Your task to perform on an android device: Clear the cart on walmart.com. Search for "energizer triple a" on walmart.com, select the first entry, add it to the cart, then select checkout. Image 0: 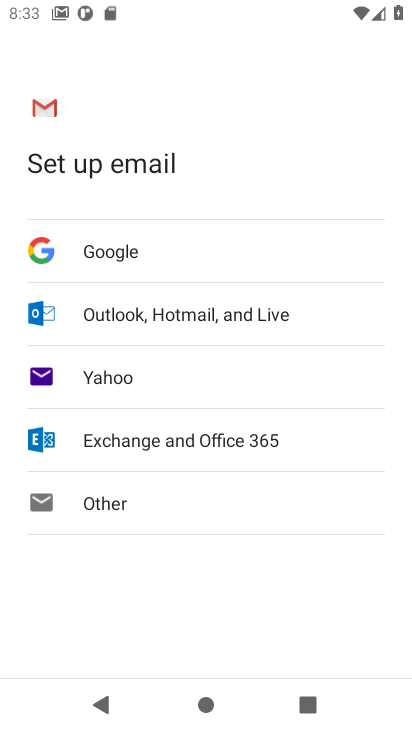
Step 0: press home button
Your task to perform on an android device: Clear the cart on walmart.com. Search for "energizer triple a" on walmart.com, select the first entry, add it to the cart, then select checkout. Image 1: 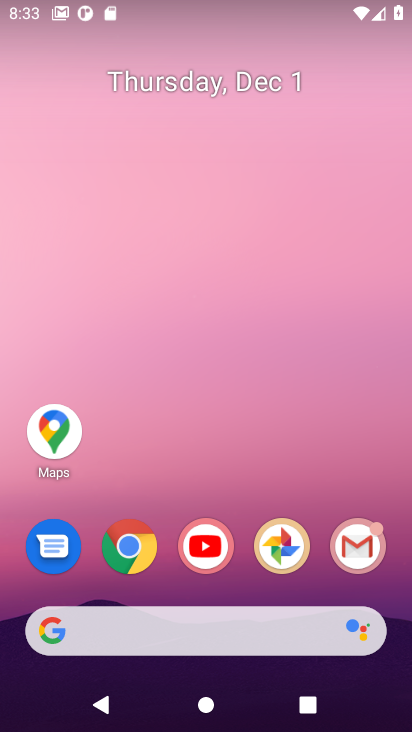
Step 1: click (132, 541)
Your task to perform on an android device: Clear the cart on walmart.com. Search for "energizer triple a" on walmart.com, select the first entry, add it to the cart, then select checkout. Image 2: 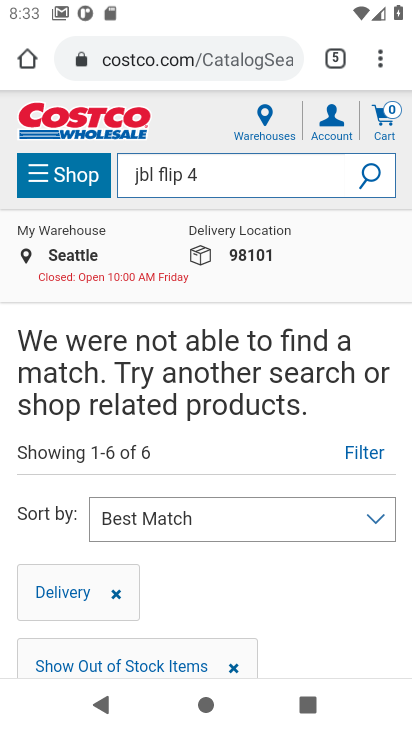
Step 2: click (154, 58)
Your task to perform on an android device: Clear the cart on walmart.com. Search for "energizer triple a" on walmart.com, select the first entry, add it to the cart, then select checkout. Image 3: 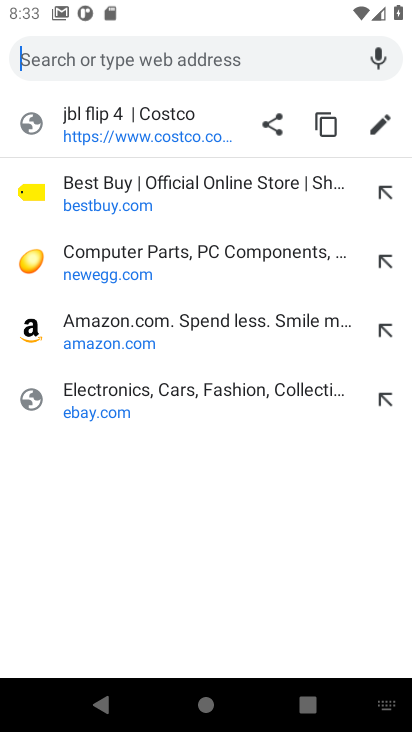
Step 3: type "walmart.com"
Your task to perform on an android device: Clear the cart on walmart.com. Search for "energizer triple a" on walmart.com, select the first entry, add it to the cart, then select checkout. Image 4: 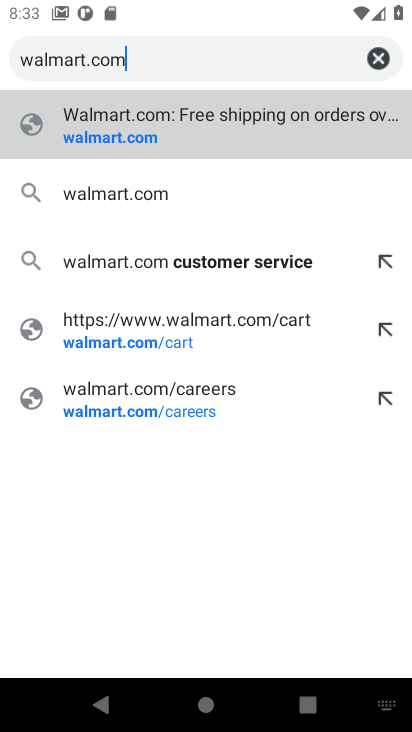
Step 4: click (99, 135)
Your task to perform on an android device: Clear the cart on walmart.com. Search for "energizer triple a" on walmart.com, select the first entry, add it to the cart, then select checkout. Image 5: 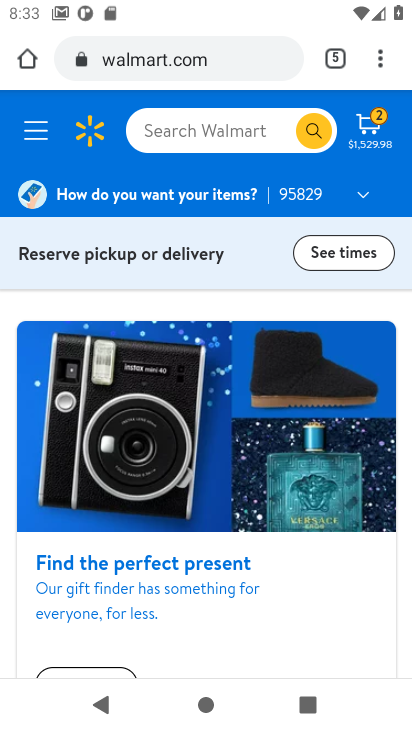
Step 5: click (371, 129)
Your task to perform on an android device: Clear the cart on walmart.com. Search for "energizer triple a" on walmart.com, select the first entry, add it to the cart, then select checkout. Image 6: 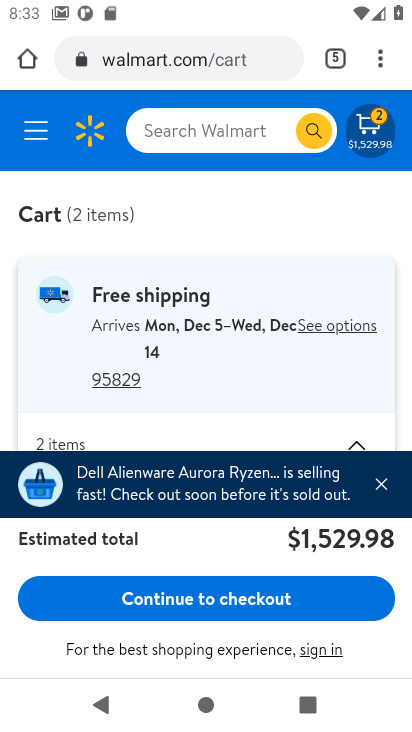
Step 6: drag from (258, 365) to (263, 185)
Your task to perform on an android device: Clear the cart on walmart.com. Search for "energizer triple a" on walmart.com, select the first entry, add it to the cart, then select checkout. Image 7: 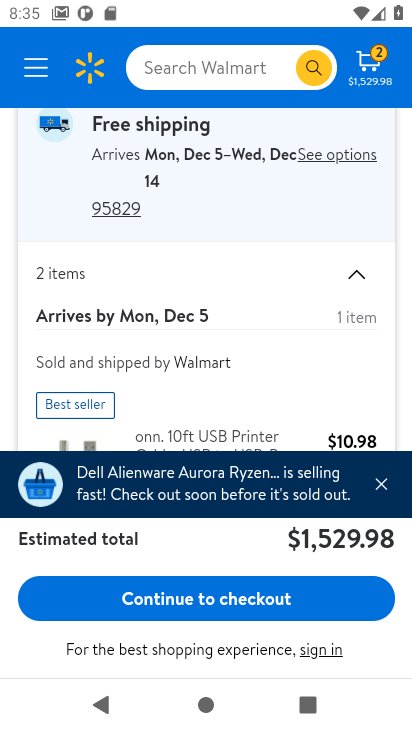
Step 7: drag from (195, 371) to (191, 237)
Your task to perform on an android device: Clear the cart on walmart.com. Search for "energizer triple a" on walmart.com, select the first entry, add it to the cart, then select checkout. Image 8: 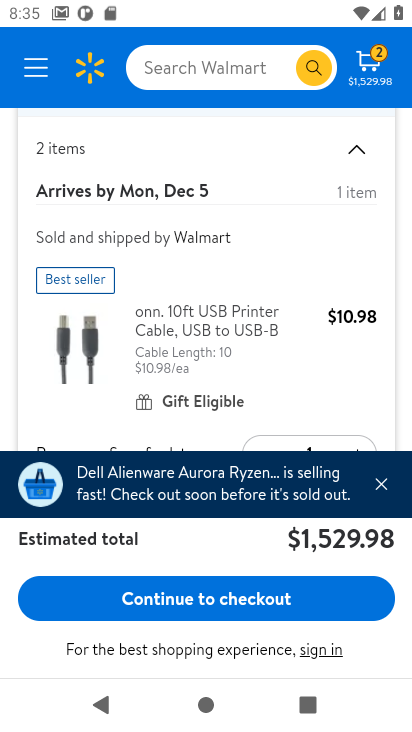
Step 8: drag from (140, 299) to (140, 189)
Your task to perform on an android device: Clear the cart on walmart.com. Search for "energizer triple a" on walmart.com, select the first entry, add it to the cart, then select checkout. Image 9: 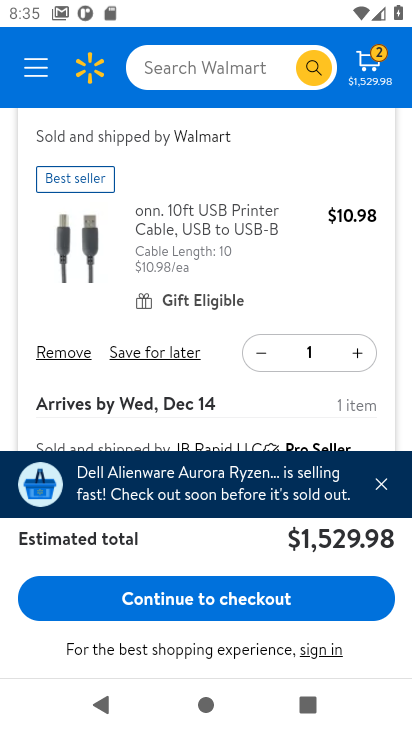
Step 9: click (64, 351)
Your task to perform on an android device: Clear the cart on walmart.com. Search for "energizer triple a" on walmart.com, select the first entry, add it to the cart, then select checkout. Image 10: 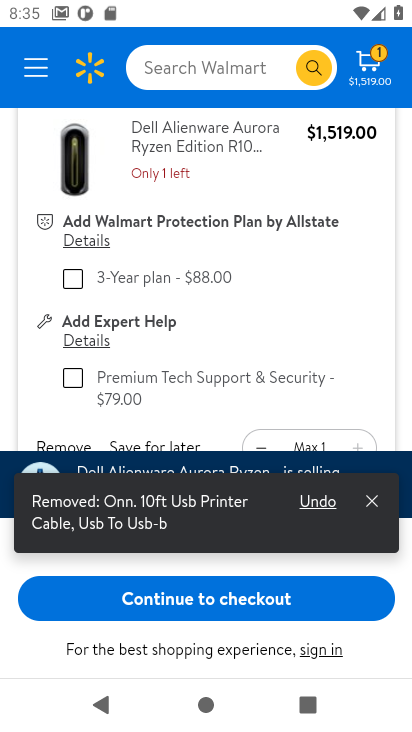
Step 10: drag from (219, 369) to (195, 175)
Your task to perform on an android device: Clear the cart on walmart.com. Search for "energizer triple a" on walmart.com, select the first entry, add it to the cart, then select checkout. Image 11: 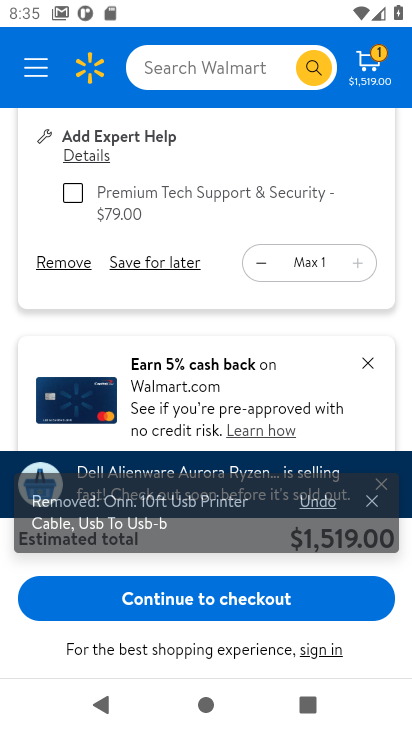
Step 11: click (69, 265)
Your task to perform on an android device: Clear the cart on walmart.com. Search for "energizer triple a" on walmart.com, select the first entry, add it to the cart, then select checkout. Image 12: 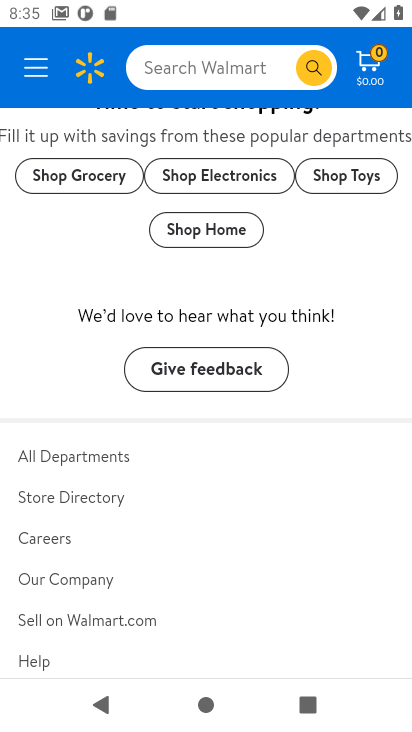
Step 12: click (168, 65)
Your task to perform on an android device: Clear the cart on walmart.com. Search for "energizer triple a" on walmart.com, select the first entry, add it to the cart, then select checkout. Image 13: 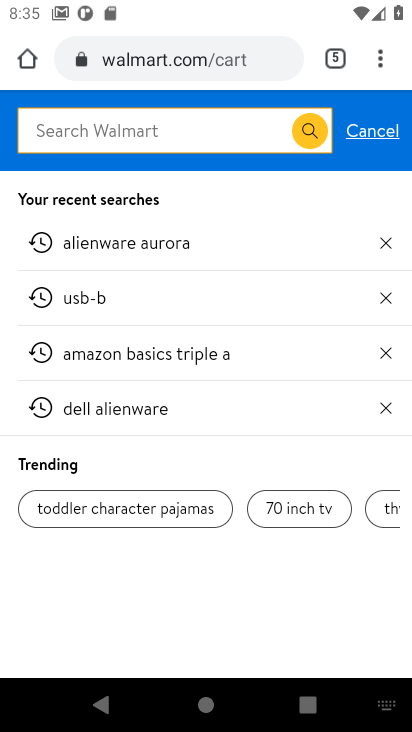
Step 13: type "energizer triple a"
Your task to perform on an android device: Clear the cart on walmart.com. Search for "energizer triple a" on walmart.com, select the first entry, add it to the cart, then select checkout. Image 14: 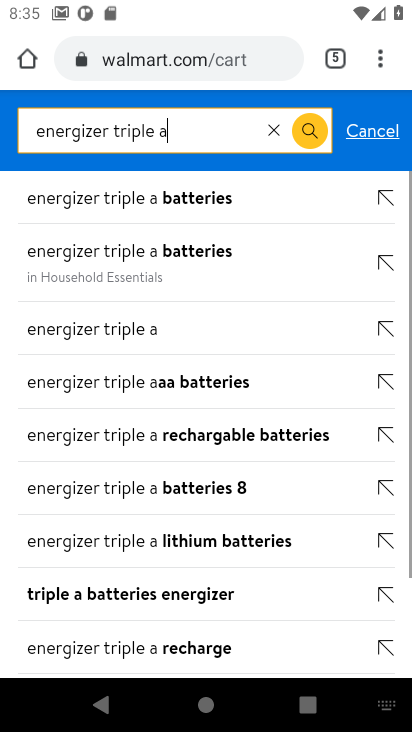
Step 14: click (137, 201)
Your task to perform on an android device: Clear the cart on walmart.com. Search for "energizer triple a" on walmart.com, select the first entry, add it to the cart, then select checkout. Image 15: 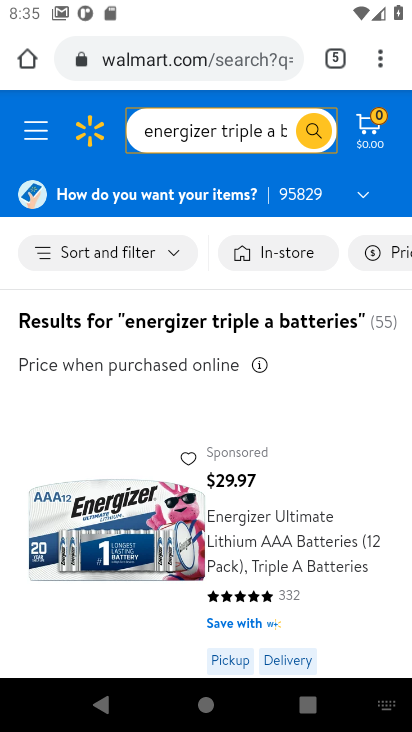
Step 15: drag from (147, 442) to (131, 276)
Your task to perform on an android device: Clear the cart on walmart.com. Search for "energizer triple a" on walmart.com, select the first entry, add it to the cart, then select checkout. Image 16: 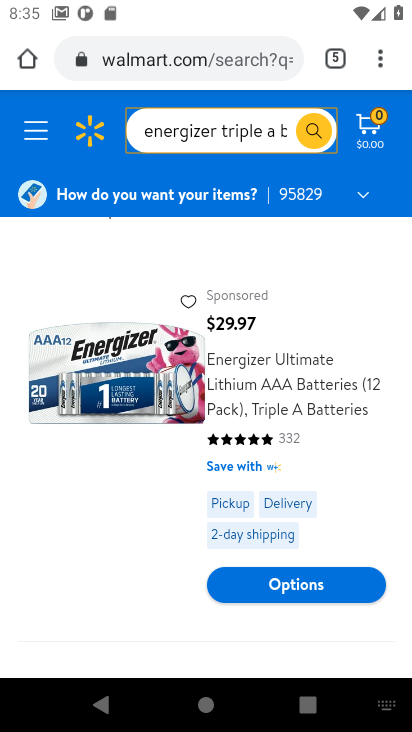
Step 16: click (330, 429)
Your task to perform on an android device: Clear the cart on walmart.com. Search for "energizer triple a" on walmart.com, select the first entry, add it to the cart, then select checkout. Image 17: 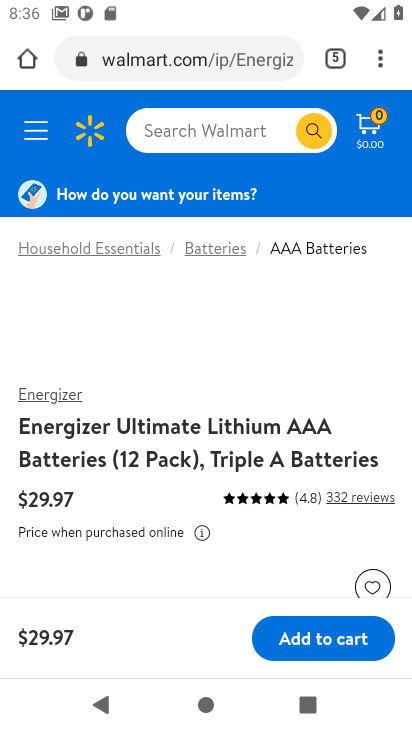
Step 17: click (288, 635)
Your task to perform on an android device: Clear the cart on walmart.com. Search for "energizer triple a" on walmart.com, select the first entry, add it to the cart, then select checkout. Image 18: 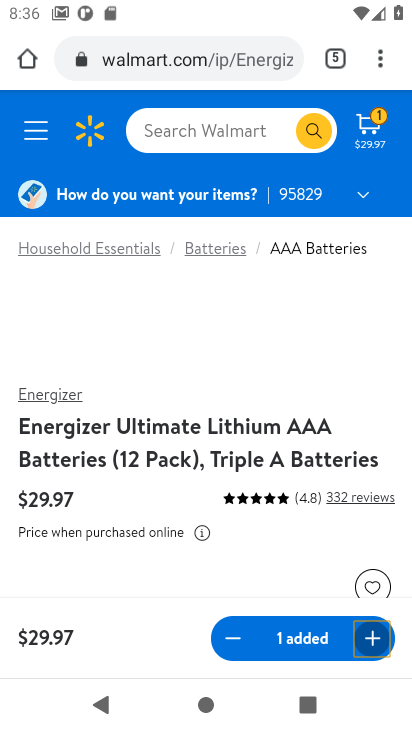
Step 18: click (379, 139)
Your task to perform on an android device: Clear the cart on walmart.com. Search for "energizer triple a" on walmart.com, select the first entry, add it to the cart, then select checkout. Image 19: 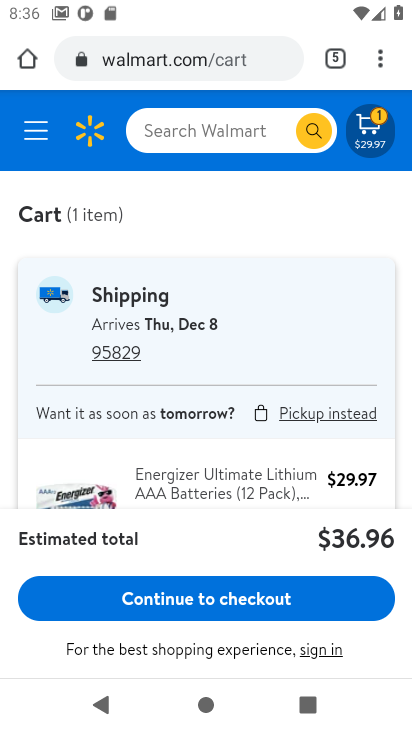
Step 19: click (197, 600)
Your task to perform on an android device: Clear the cart on walmart.com. Search for "energizer triple a" on walmart.com, select the first entry, add it to the cart, then select checkout. Image 20: 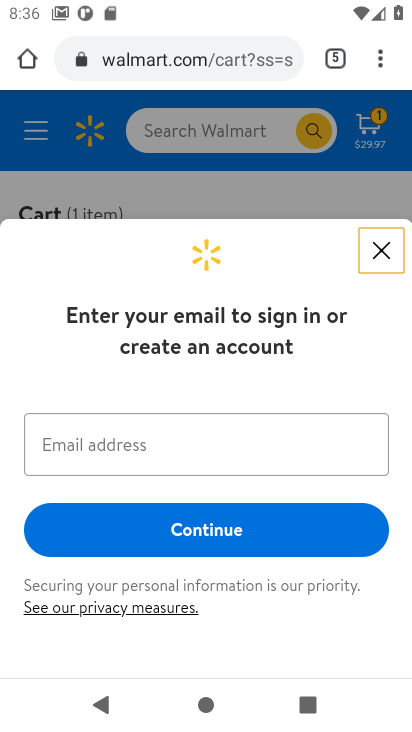
Step 20: task complete